Your task to perform on an android device: create a new album in the google photos Image 0: 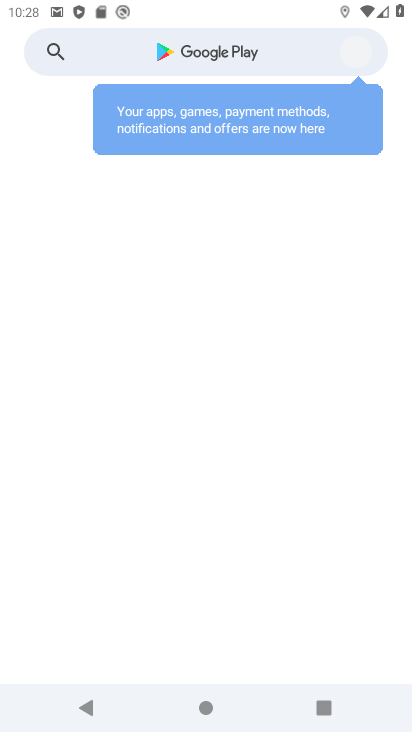
Step 0: press home button
Your task to perform on an android device: create a new album in the google photos Image 1: 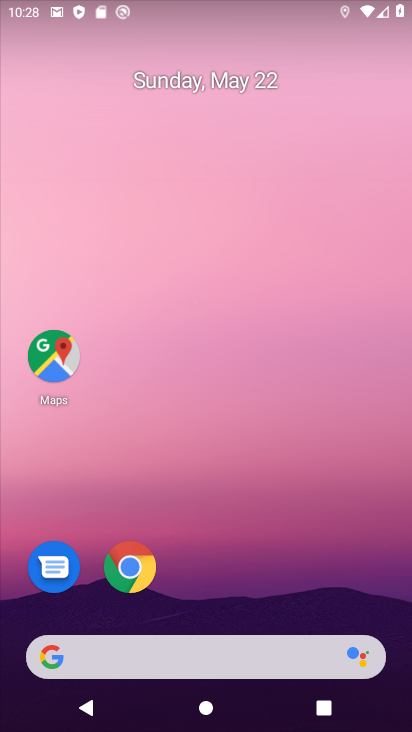
Step 1: drag from (371, 529) to (389, 160)
Your task to perform on an android device: create a new album in the google photos Image 2: 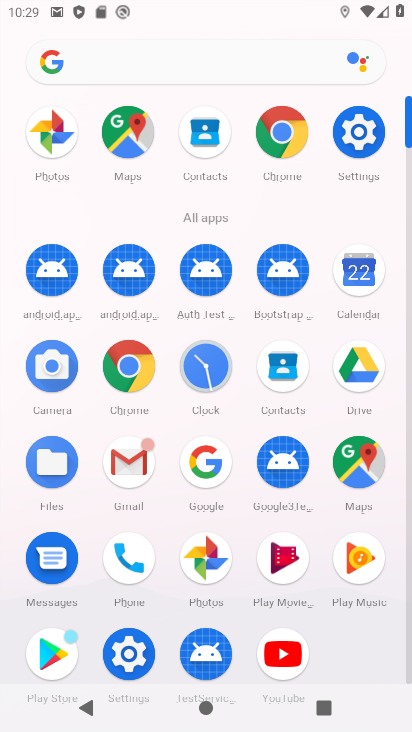
Step 2: click (197, 542)
Your task to perform on an android device: create a new album in the google photos Image 3: 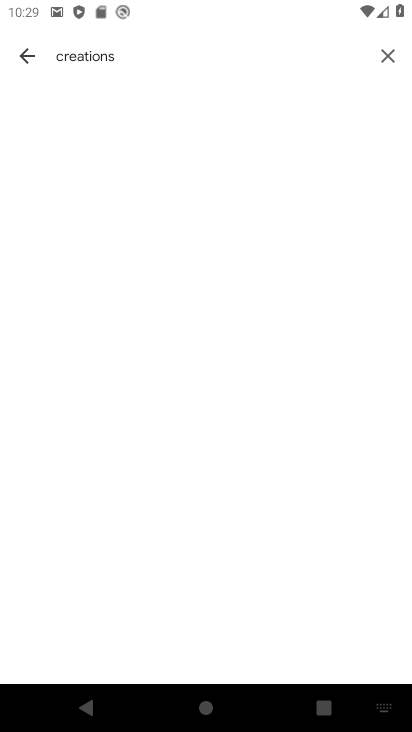
Step 3: click (380, 59)
Your task to perform on an android device: create a new album in the google photos Image 4: 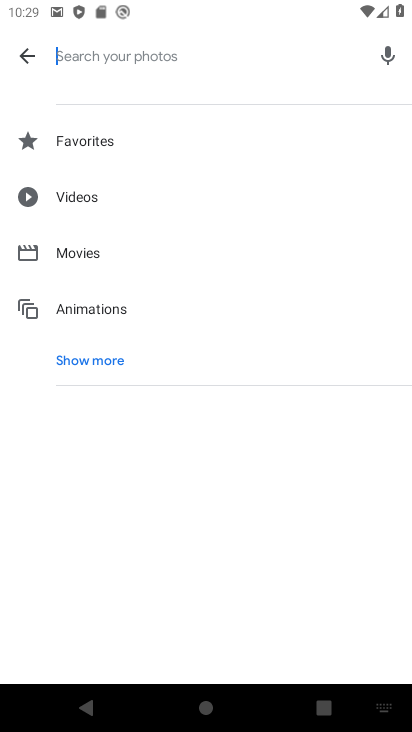
Step 4: click (37, 53)
Your task to perform on an android device: create a new album in the google photos Image 5: 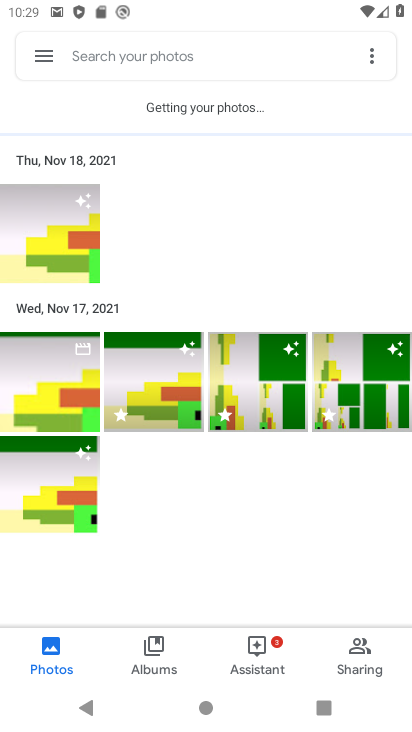
Step 5: click (161, 660)
Your task to perform on an android device: create a new album in the google photos Image 6: 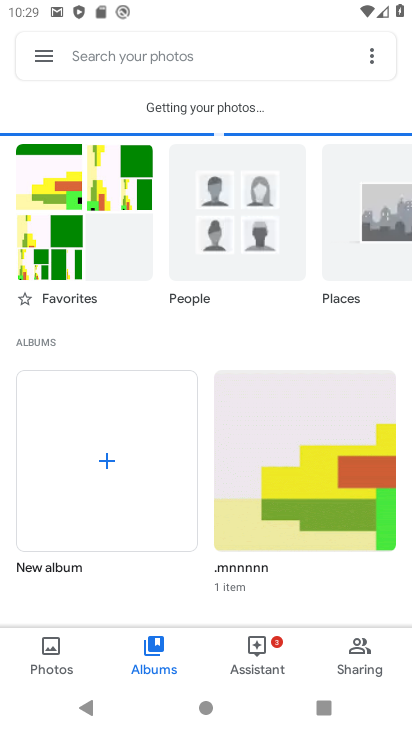
Step 6: click (120, 461)
Your task to perform on an android device: create a new album in the google photos Image 7: 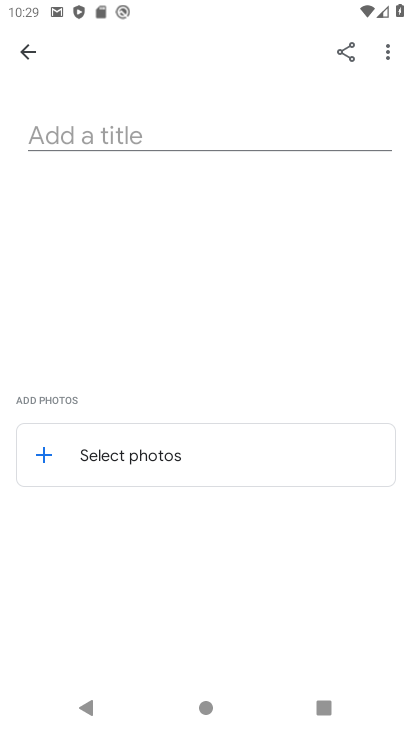
Step 7: click (169, 138)
Your task to perform on an android device: create a new album in the google photos Image 8: 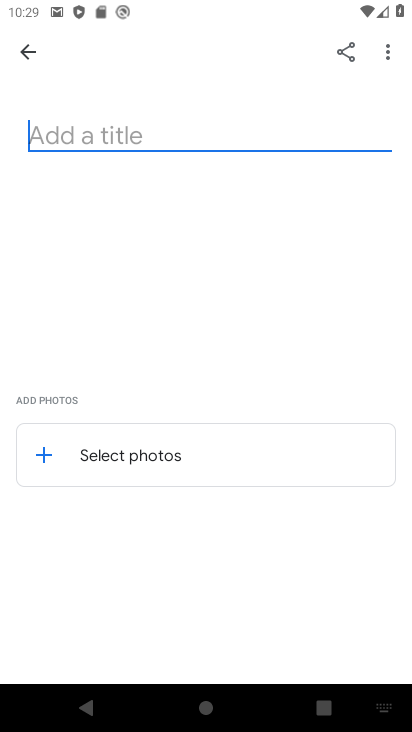
Step 8: type "domf"
Your task to perform on an android device: create a new album in the google photos Image 9: 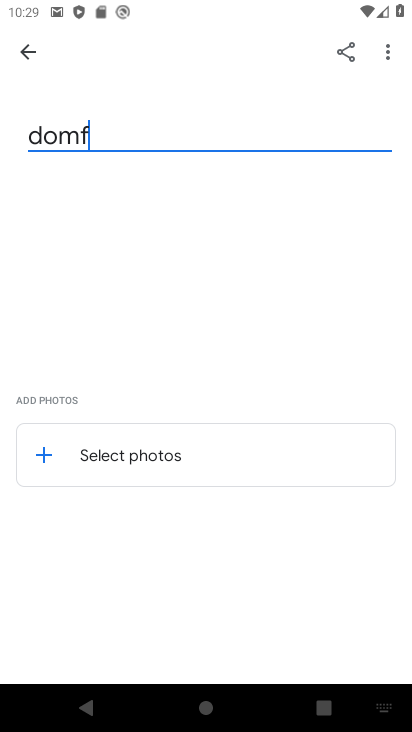
Step 9: click (40, 456)
Your task to perform on an android device: create a new album in the google photos Image 10: 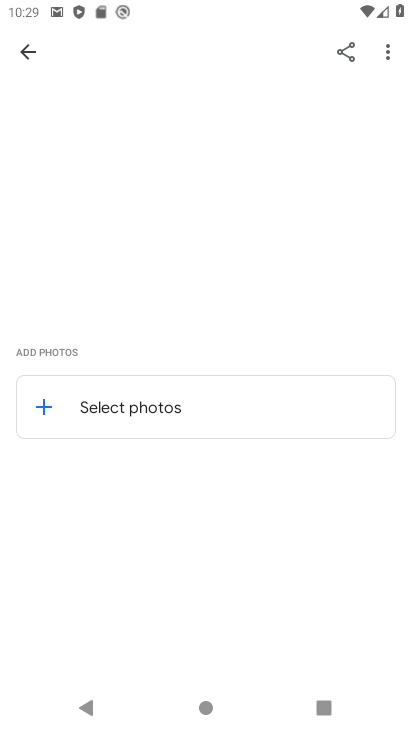
Step 10: click (40, 415)
Your task to perform on an android device: create a new album in the google photos Image 11: 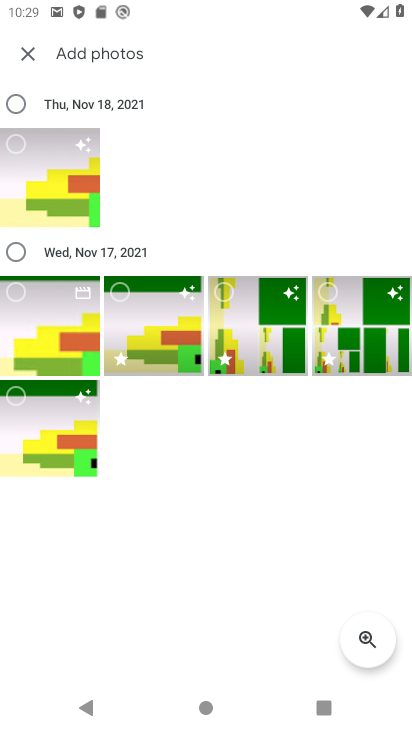
Step 11: click (8, 142)
Your task to perform on an android device: create a new album in the google photos Image 12: 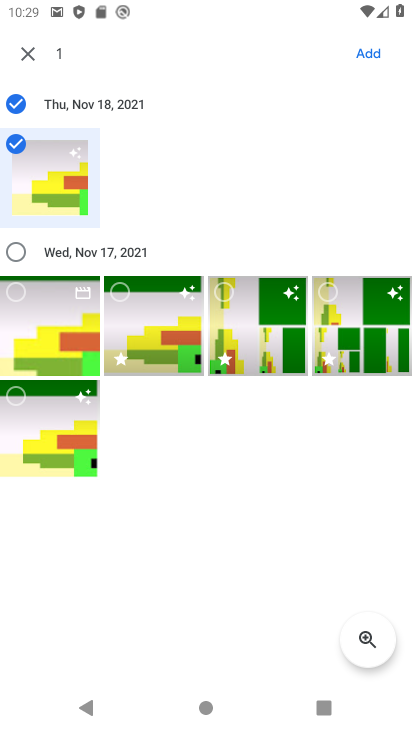
Step 12: click (373, 59)
Your task to perform on an android device: create a new album in the google photos Image 13: 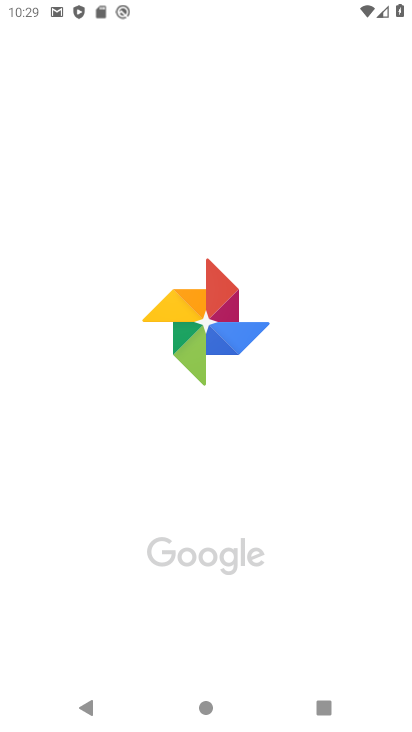
Step 13: task complete